Your task to perform on an android device: Open wifi settings Image 0: 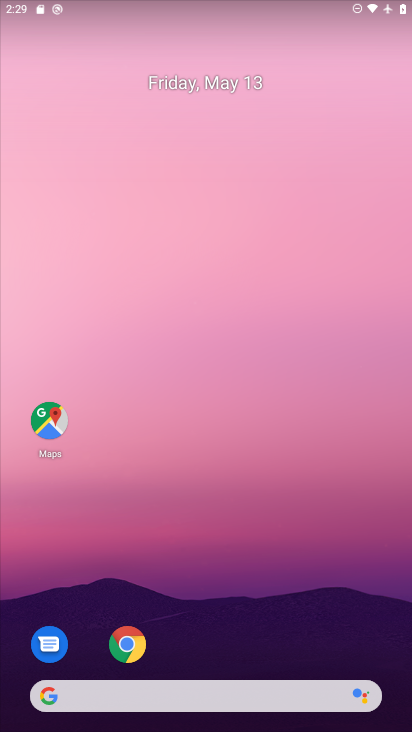
Step 0: drag from (308, 654) to (333, 5)
Your task to perform on an android device: Open wifi settings Image 1: 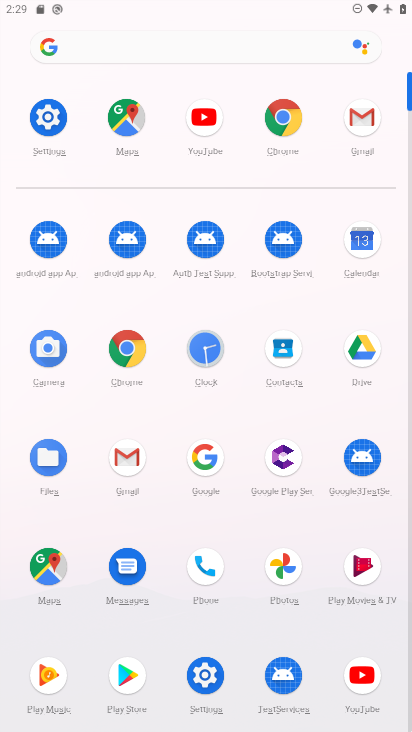
Step 1: click (53, 138)
Your task to perform on an android device: Open wifi settings Image 2: 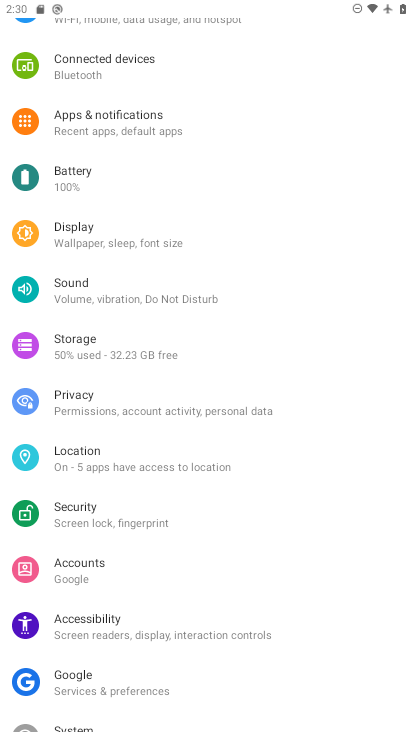
Step 2: drag from (214, 110) to (194, 645)
Your task to perform on an android device: Open wifi settings Image 3: 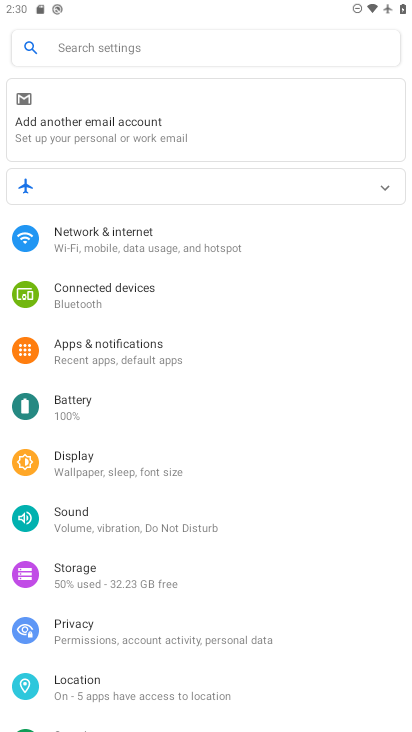
Step 3: click (170, 241)
Your task to perform on an android device: Open wifi settings Image 4: 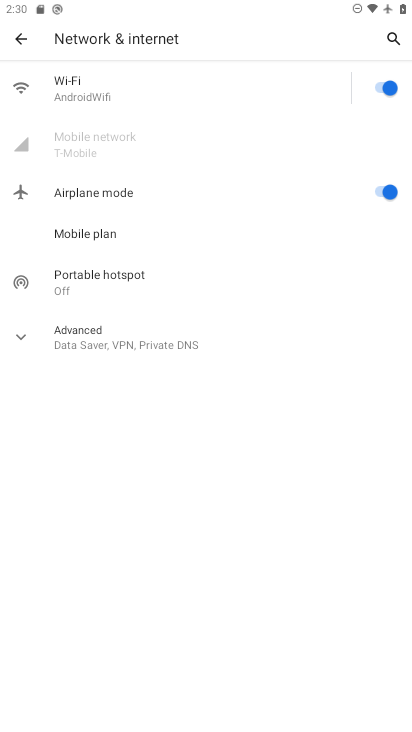
Step 4: click (167, 90)
Your task to perform on an android device: Open wifi settings Image 5: 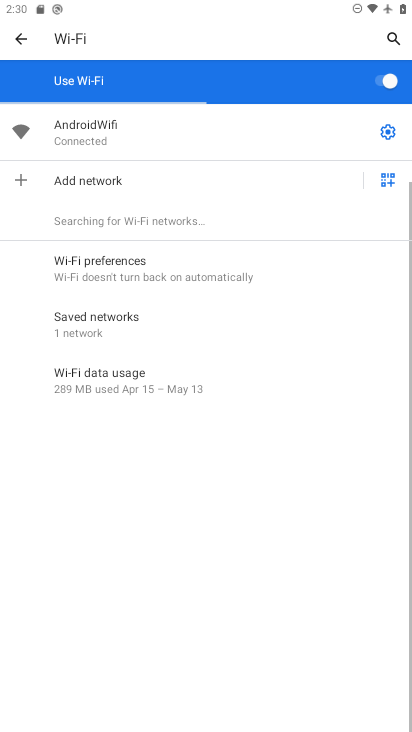
Step 5: task complete